Your task to perform on an android device: Turn off the flashlight Image 0: 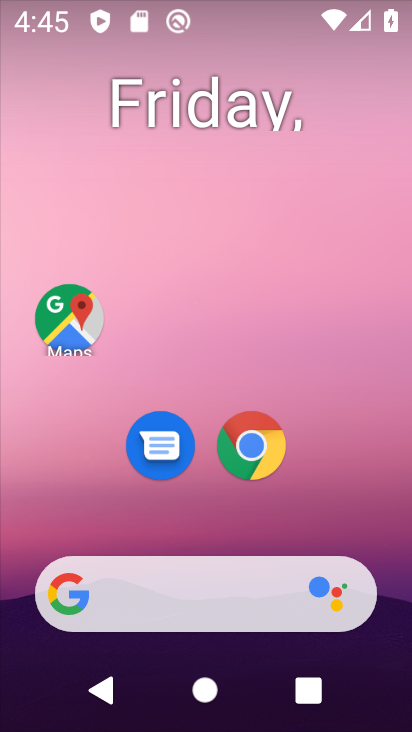
Step 0: drag from (361, 501) to (321, 121)
Your task to perform on an android device: Turn off the flashlight Image 1: 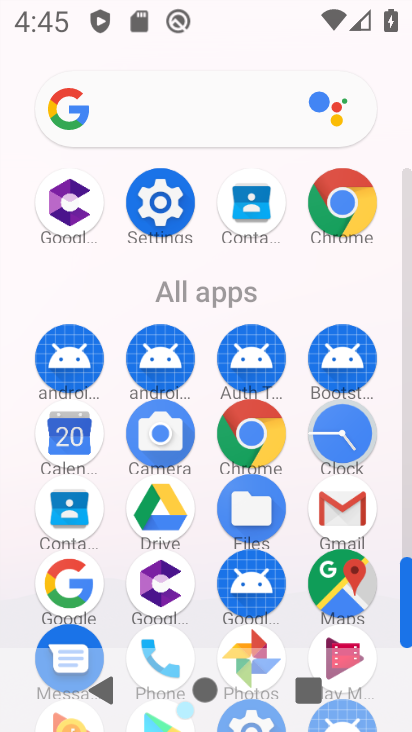
Step 1: click (166, 203)
Your task to perform on an android device: Turn off the flashlight Image 2: 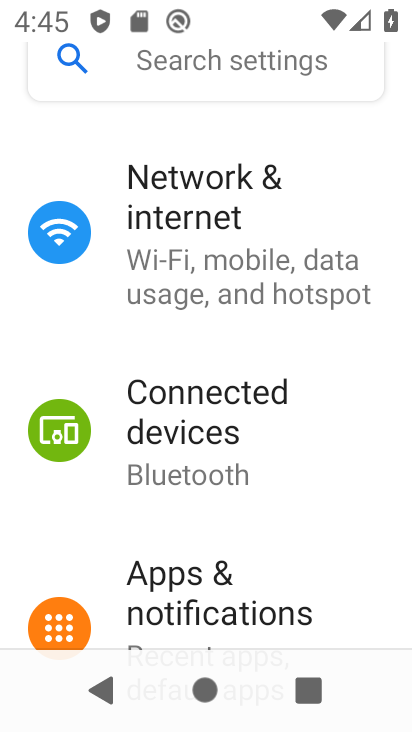
Step 2: task complete